Your task to perform on an android device: toggle translation in the chrome app Image 0: 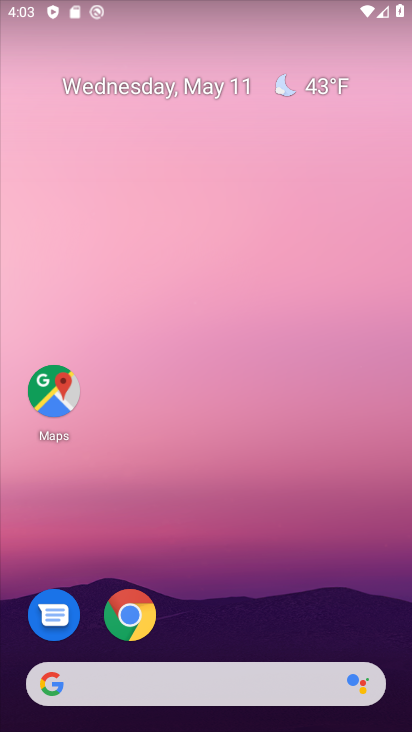
Step 0: drag from (229, 505) to (217, 11)
Your task to perform on an android device: toggle translation in the chrome app Image 1: 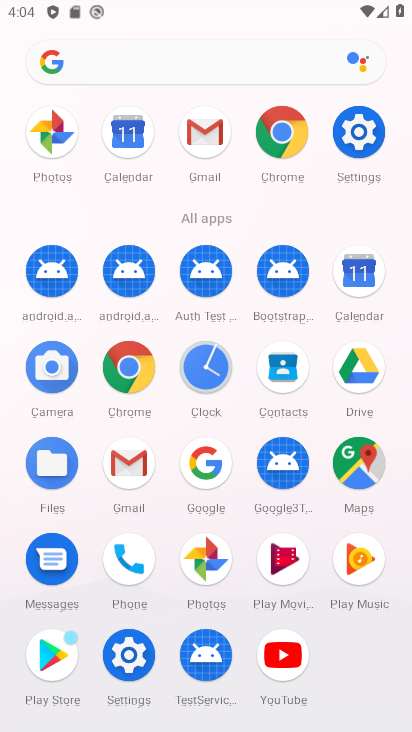
Step 1: drag from (2, 593) to (0, 264)
Your task to perform on an android device: toggle translation in the chrome app Image 2: 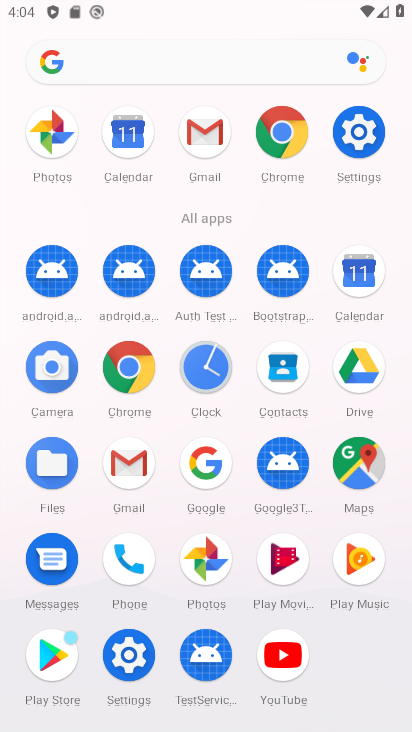
Step 2: click (128, 359)
Your task to perform on an android device: toggle translation in the chrome app Image 3: 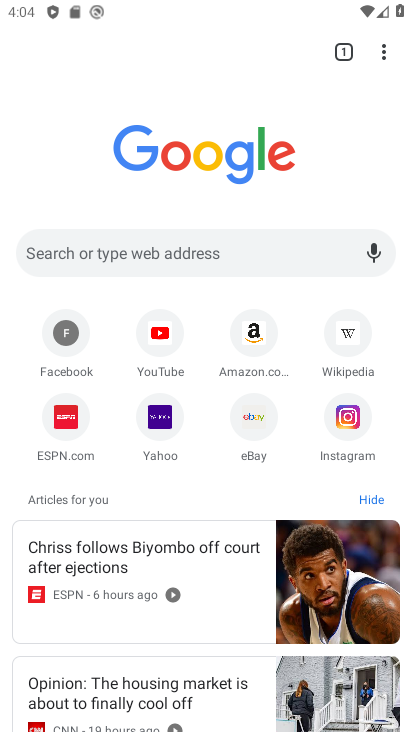
Step 3: drag from (380, 51) to (222, 442)
Your task to perform on an android device: toggle translation in the chrome app Image 4: 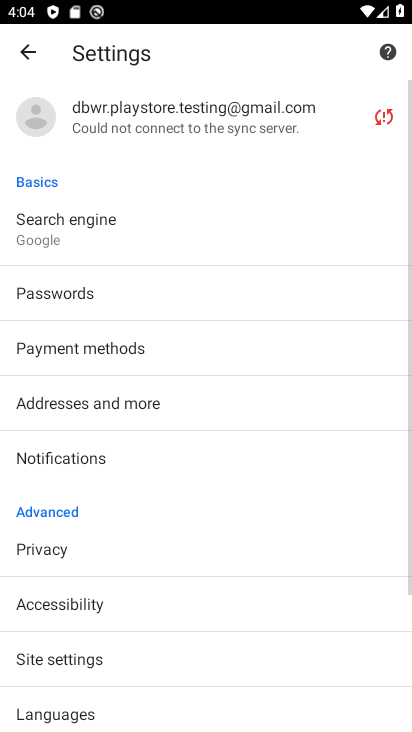
Step 4: drag from (155, 507) to (178, 171)
Your task to perform on an android device: toggle translation in the chrome app Image 5: 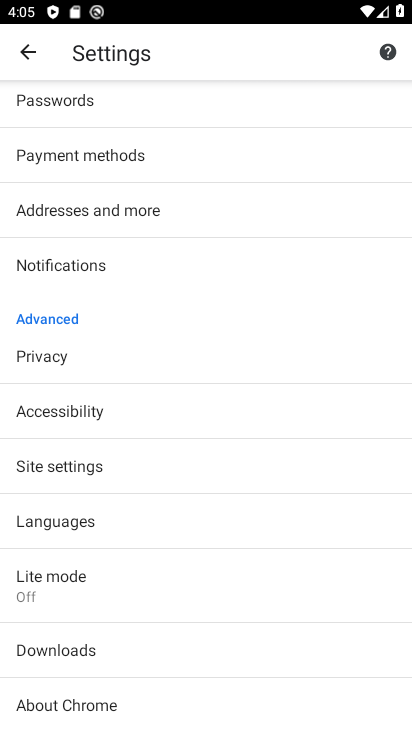
Step 5: click (92, 520)
Your task to perform on an android device: toggle translation in the chrome app Image 6: 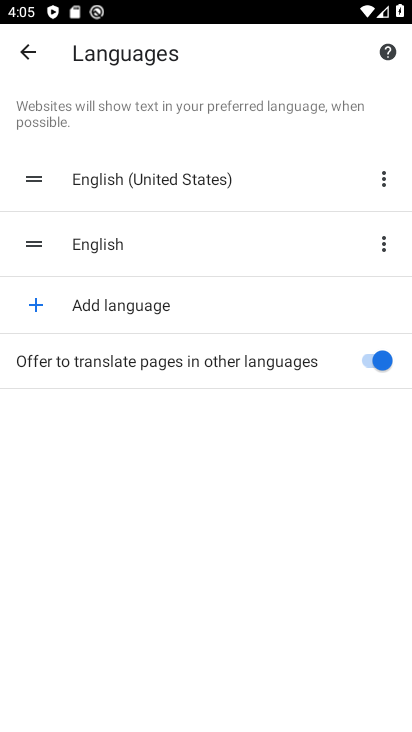
Step 6: task complete